Your task to perform on an android device: Open the stopwatch Image 0: 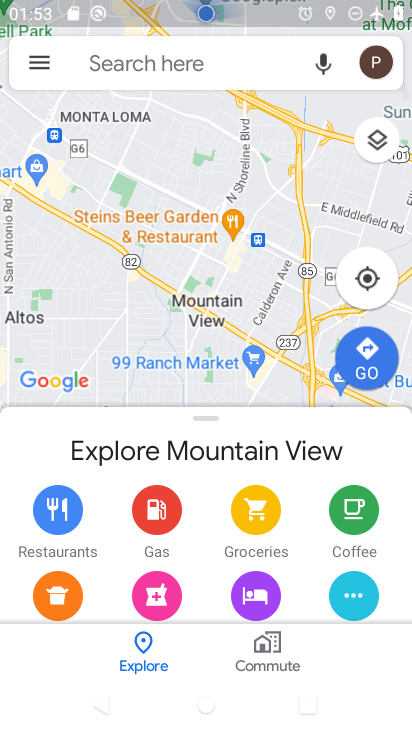
Step 0: press home button
Your task to perform on an android device: Open the stopwatch Image 1: 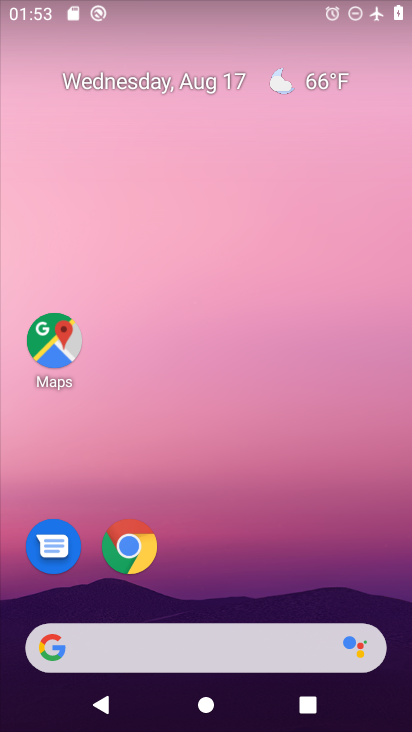
Step 1: drag from (224, 576) to (238, 96)
Your task to perform on an android device: Open the stopwatch Image 2: 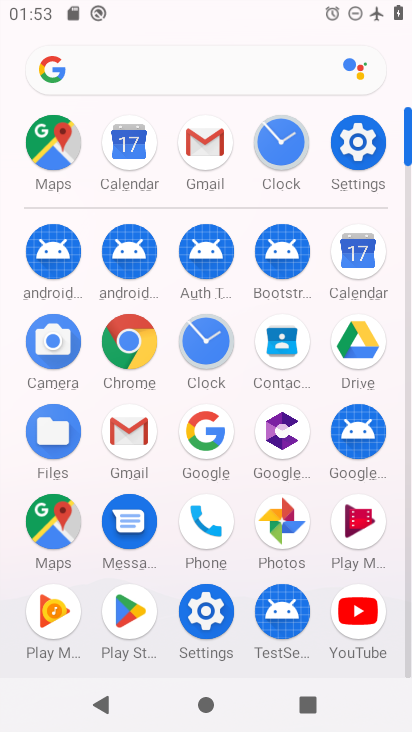
Step 2: click (285, 144)
Your task to perform on an android device: Open the stopwatch Image 3: 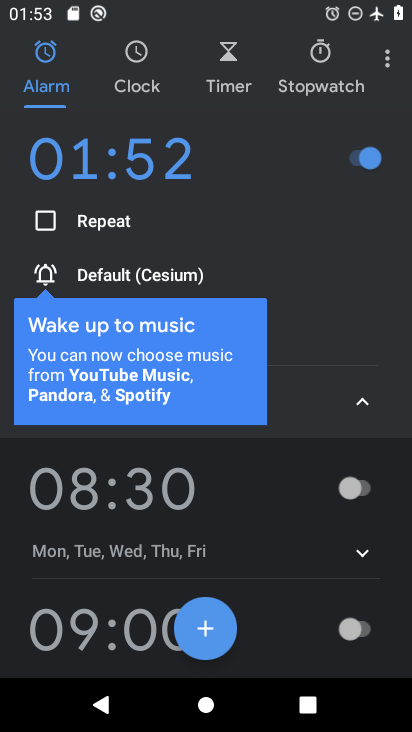
Step 3: click (318, 55)
Your task to perform on an android device: Open the stopwatch Image 4: 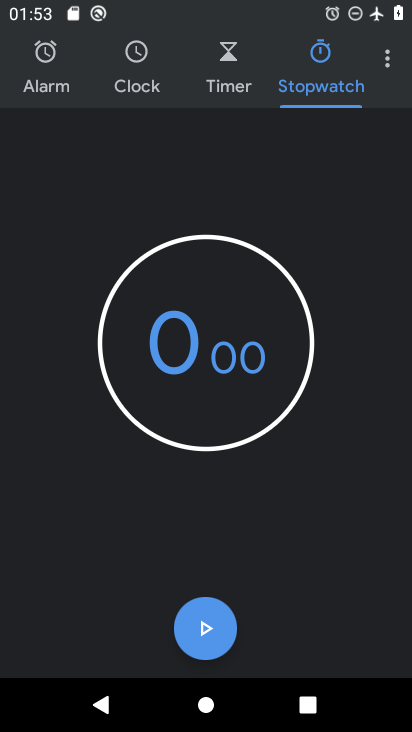
Step 4: task complete